Your task to perform on an android device: Add alienware area 51 to the cart on amazon Image 0: 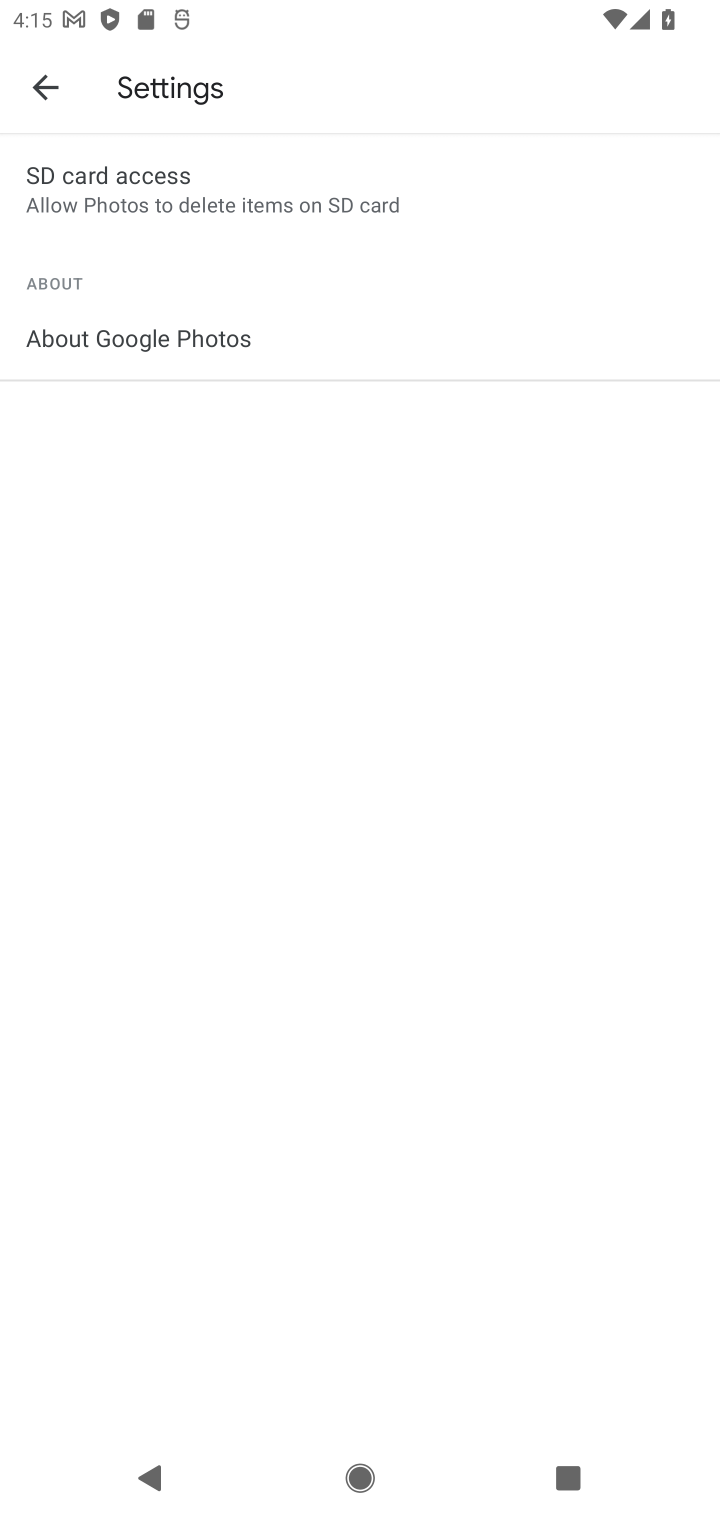
Step 0: press home button
Your task to perform on an android device: Add alienware area 51 to the cart on amazon Image 1: 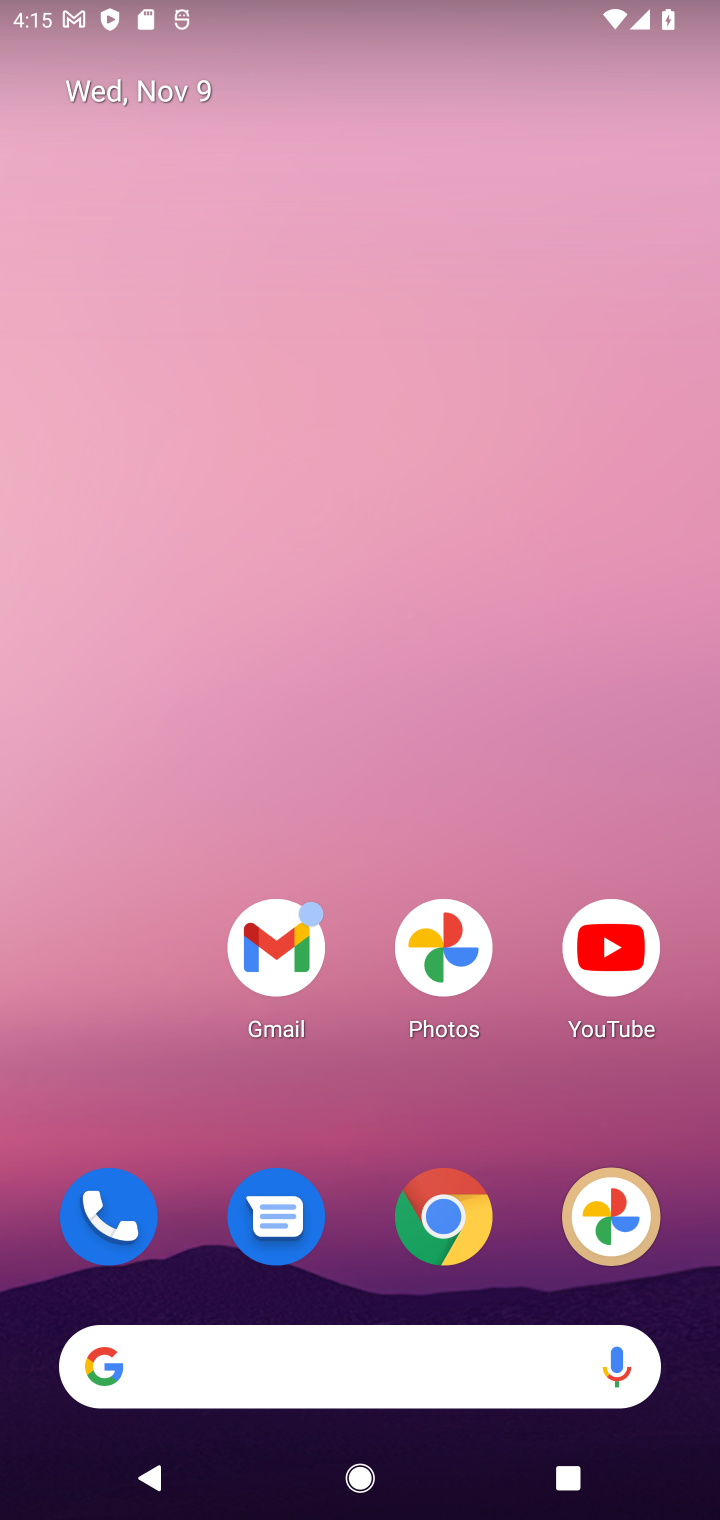
Step 1: drag from (374, 1101) to (393, 281)
Your task to perform on an android device: Add alienware area 51 to the cart on amazon Image 2: 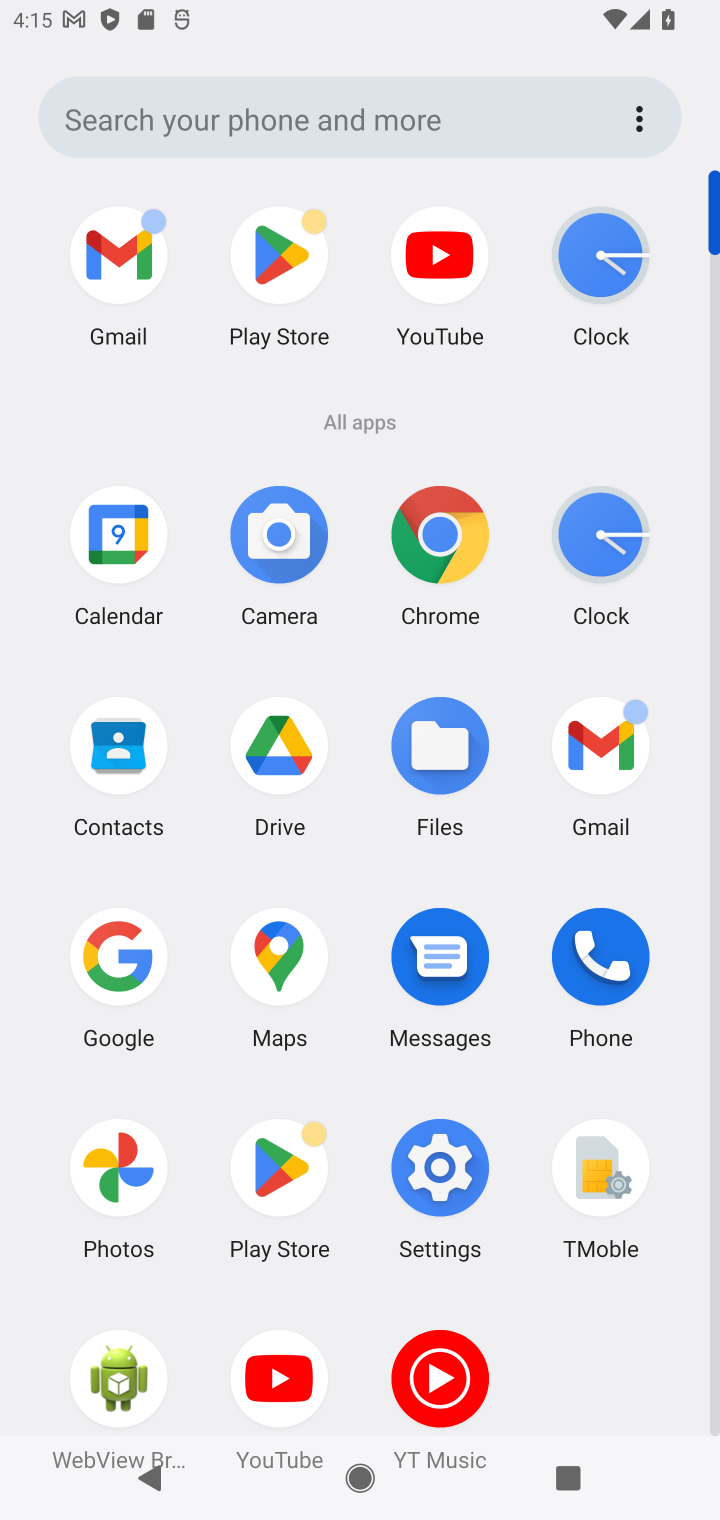
Step 2: click (438, 532)
Your task to perform on an android device: Add alienware area 51 to the cart on amazon Image 3: 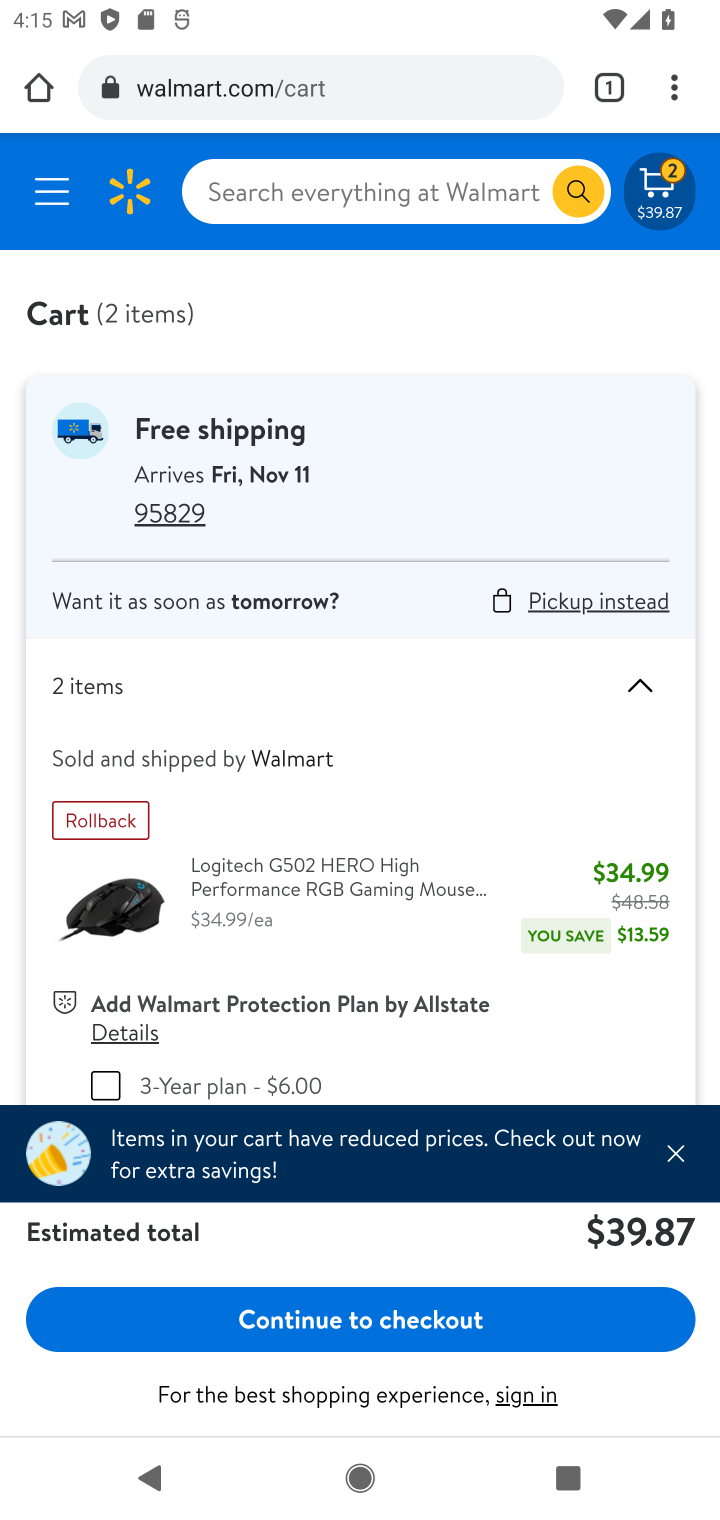
Step 3: click (389, 82)
Your task to perform on an android device: Add alienware area 51 to the cart on amazon Image 4: 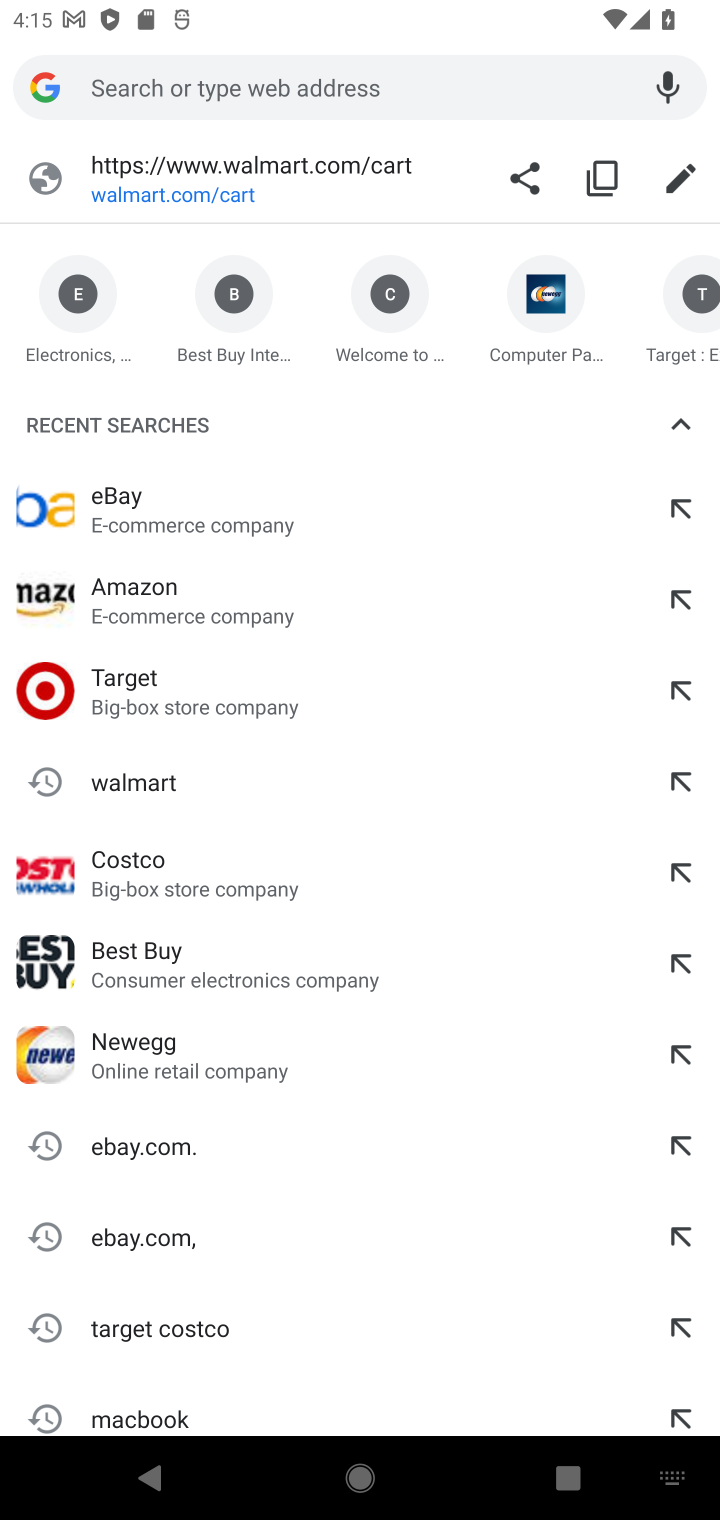
Step 4: type "amazon.com"
Your task to perform on an android device: Add alienware area 51 to the cart on amazon Image 5: 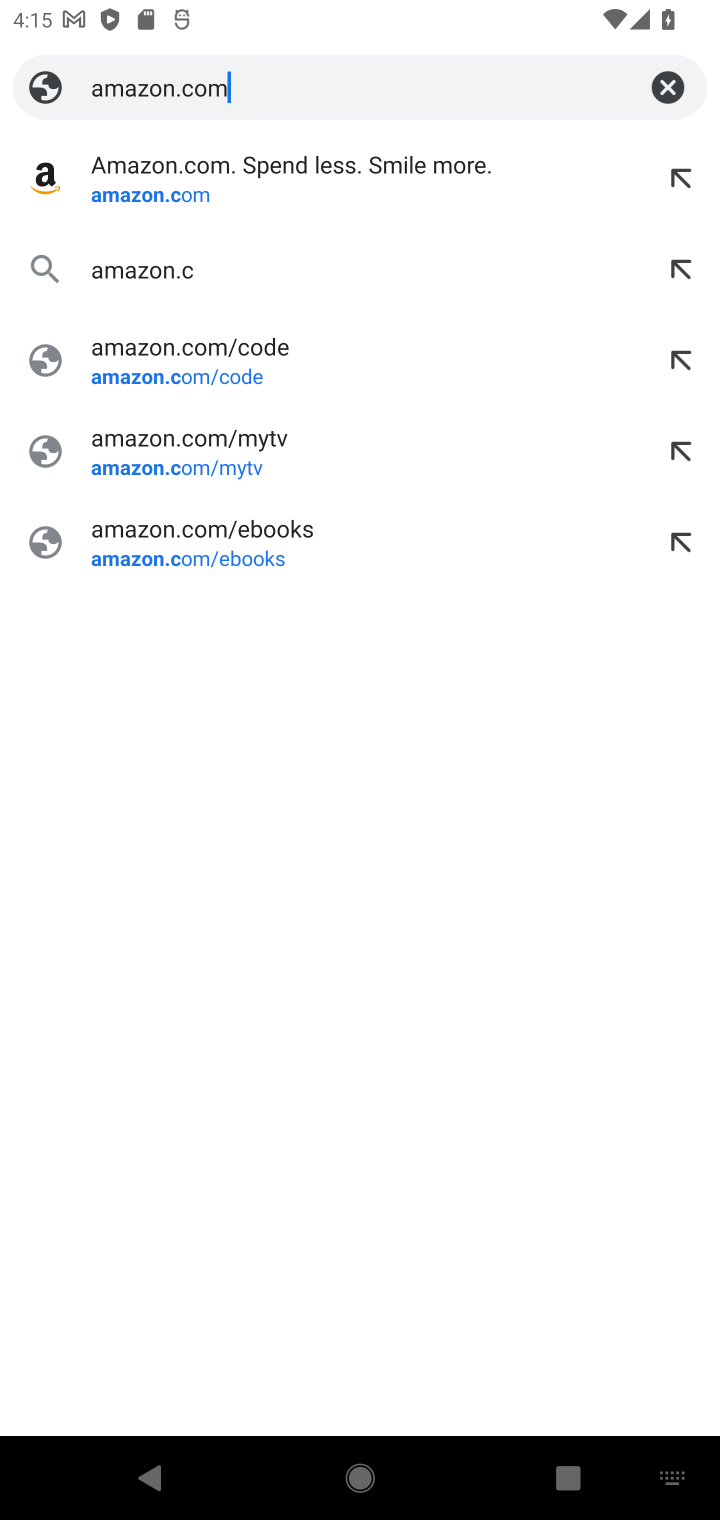
Step 5: press enter
Your task to perform on an android device: Add alienware area 51 to the cart on amazon Image 6: 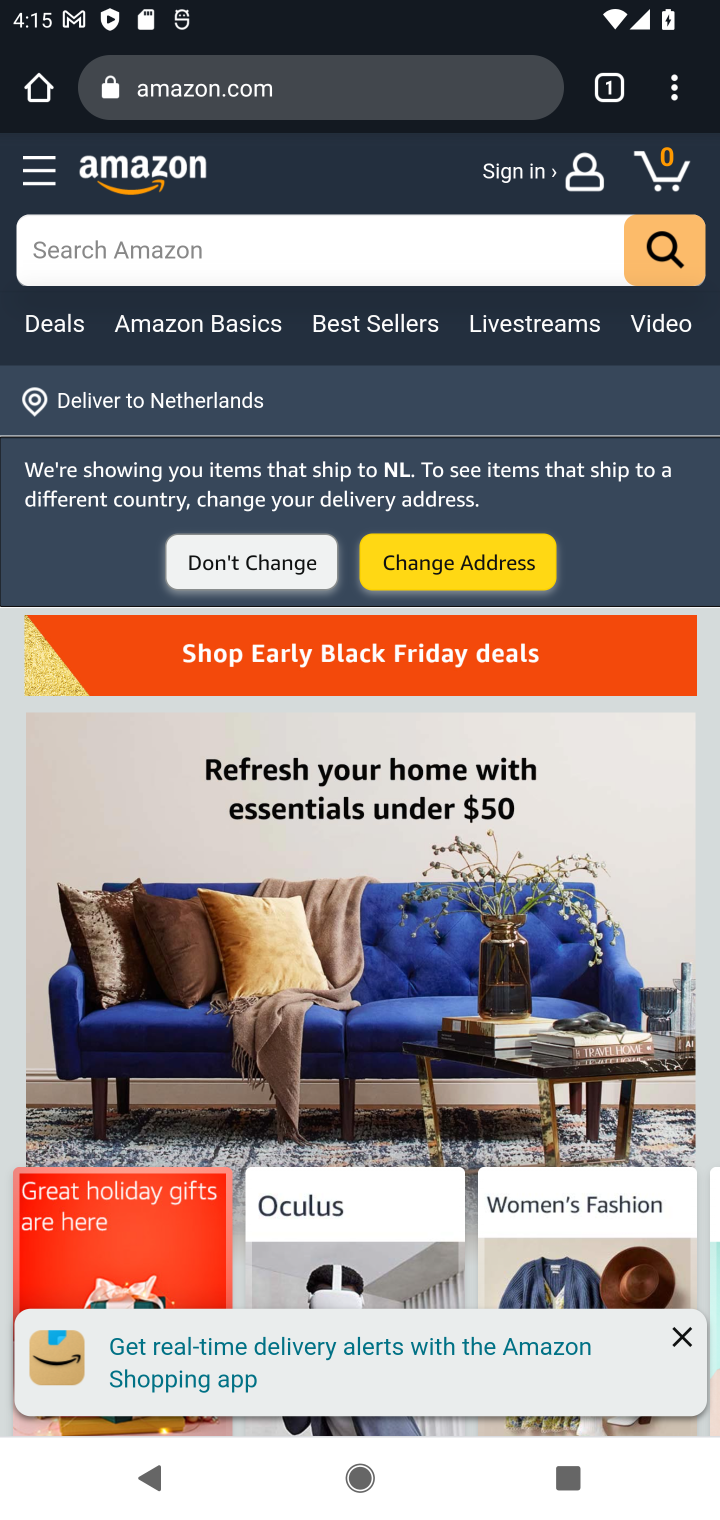
Step 6: click (498, 264)
Your task to perform on an android device: Add alienware area 51 to the cart on amazon Image 7: 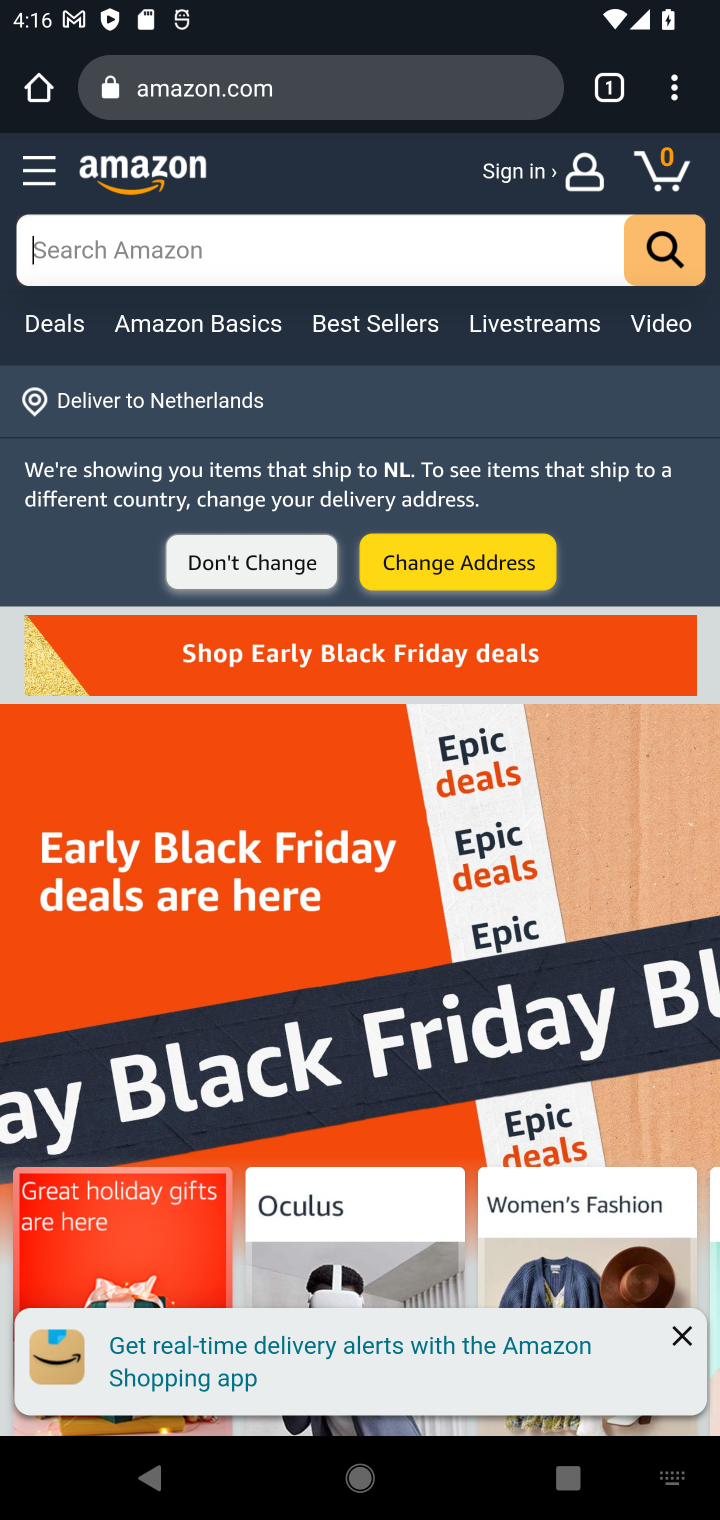
Step 7: type "alienware area 51"
Your task to perform on an android device: Add alienware area 51 to the cart on amazon Image 8: 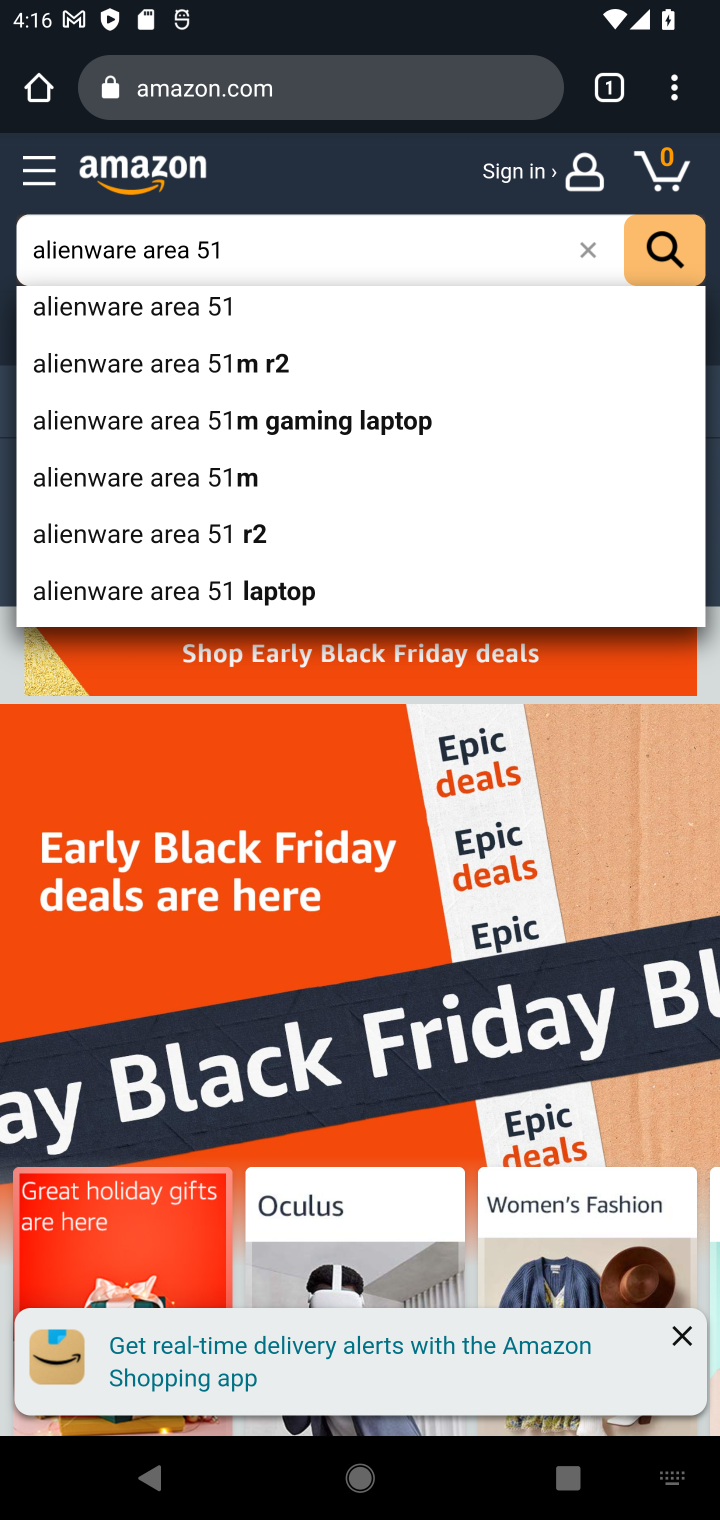
Step 8: press enter
Your task to perform on an android device: Add alienware area 51 to the cart on amazon Image 9: 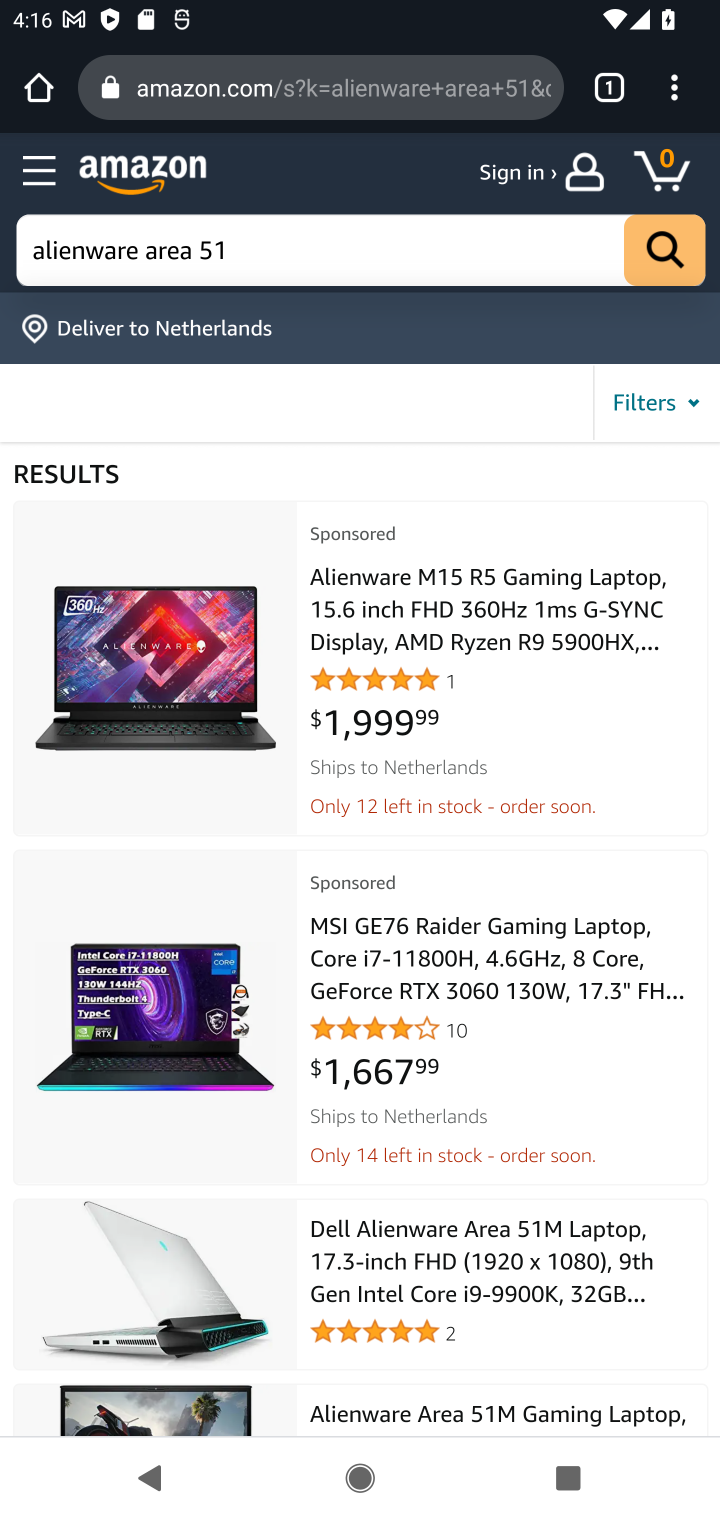
Step 9: drag from (438, 1275) to (457, 773)
Your task to perform on an android device: Add alienware area 51 to the cart on amazon Image 10: 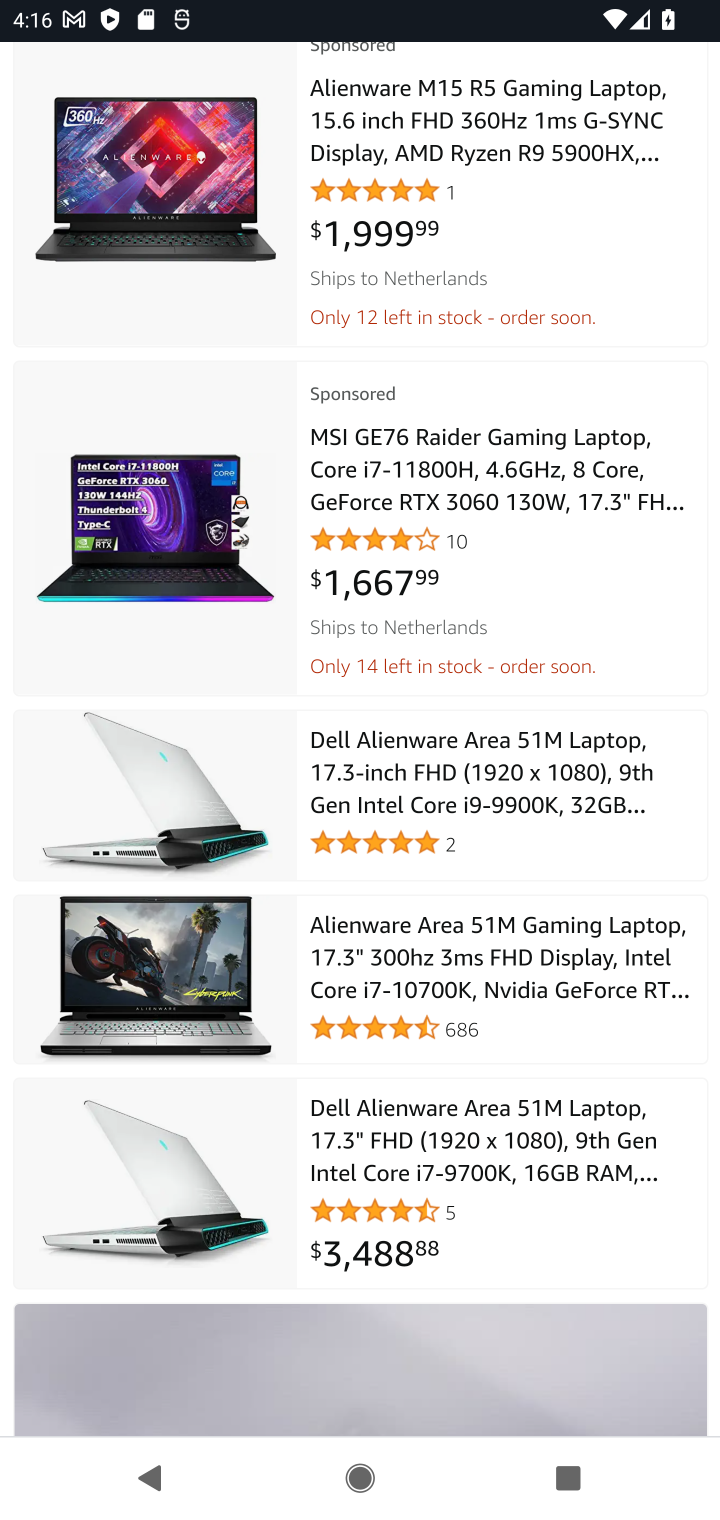
Step 10: click (461, 793)
Your task to perform on an android device: Add alienware area 51 to the cart on amazon Image 11: 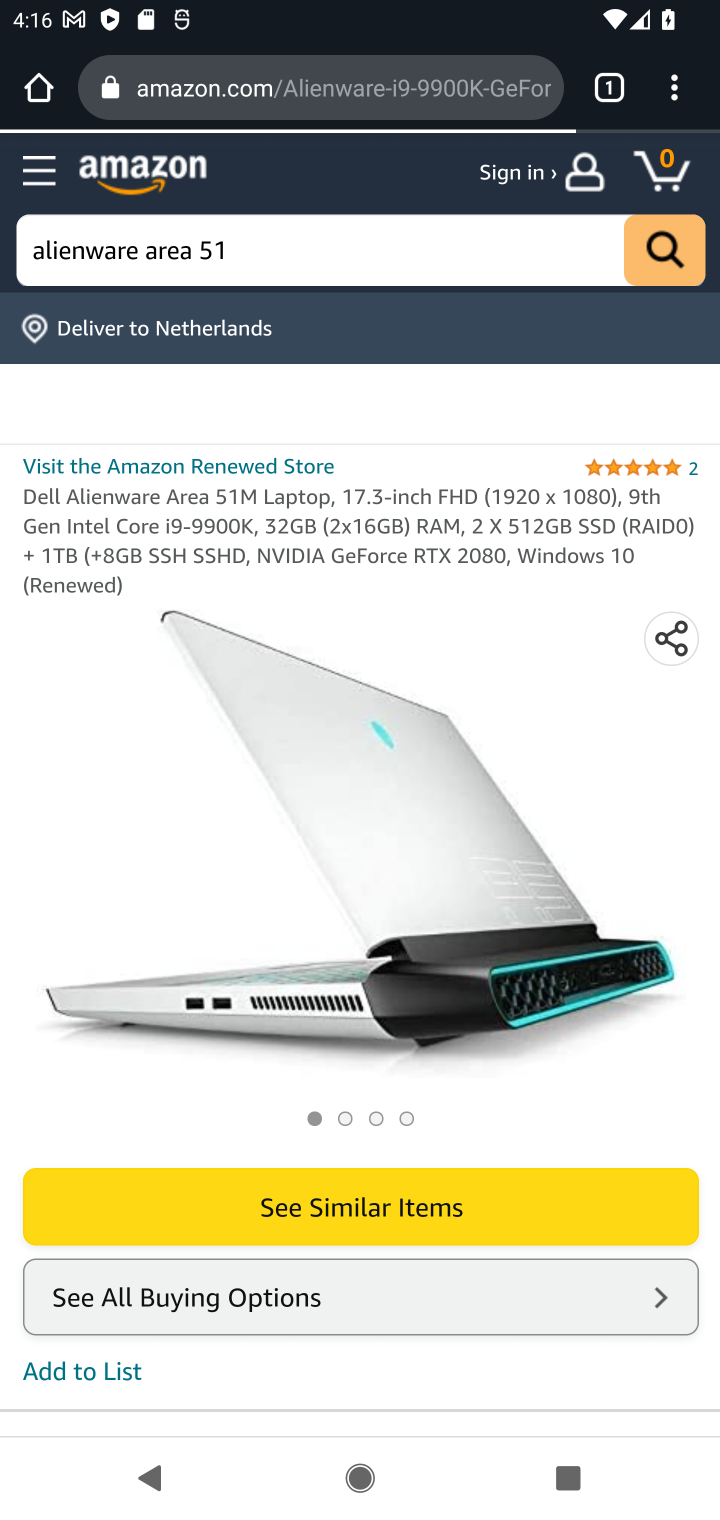
Step 11: drag from (468, 1220) to (631, 614)
Your task to perform on an android device: Add alienware area 51 to the cart on amazon Image 12: 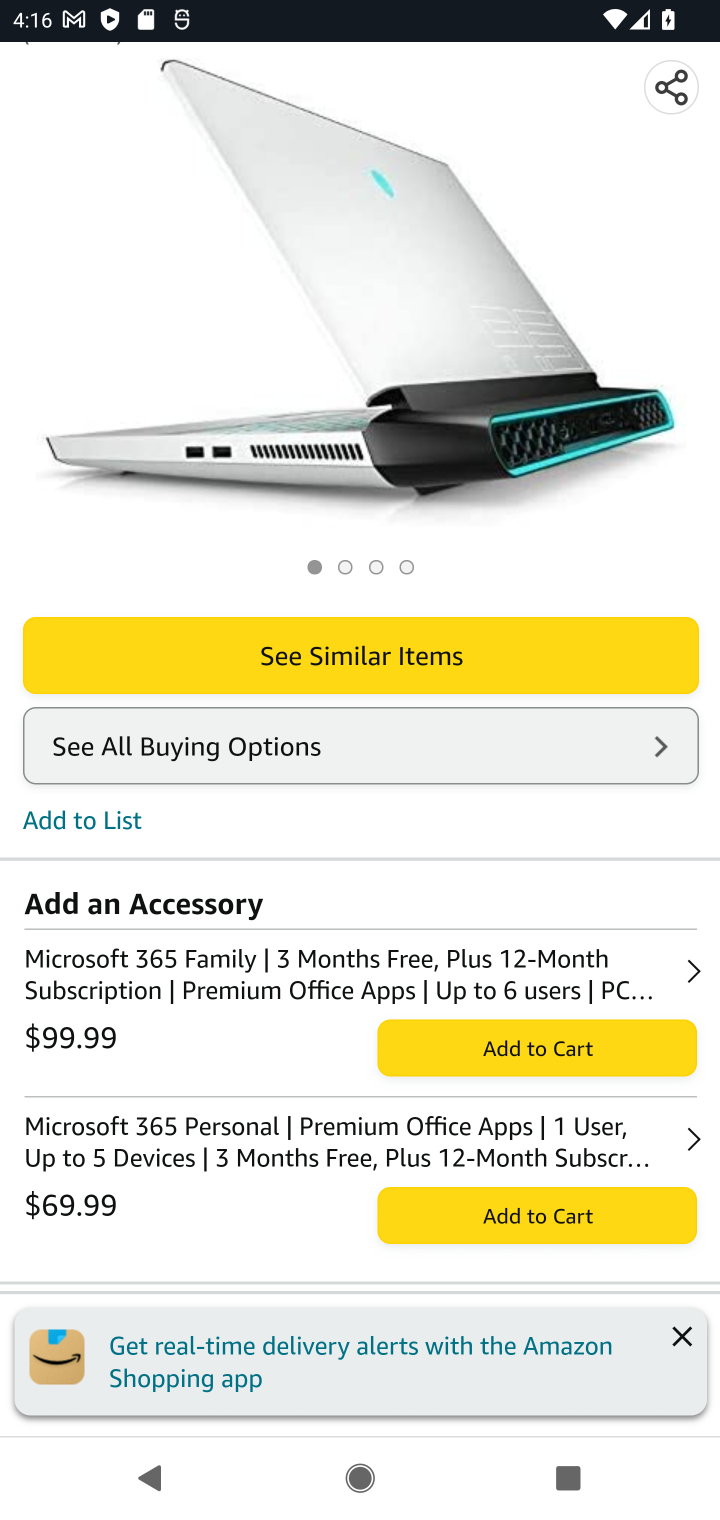
Step 12: click (461, 747)
Your task to perform on an android device: Add alienware area 51 to the cart on amazon Image 13: 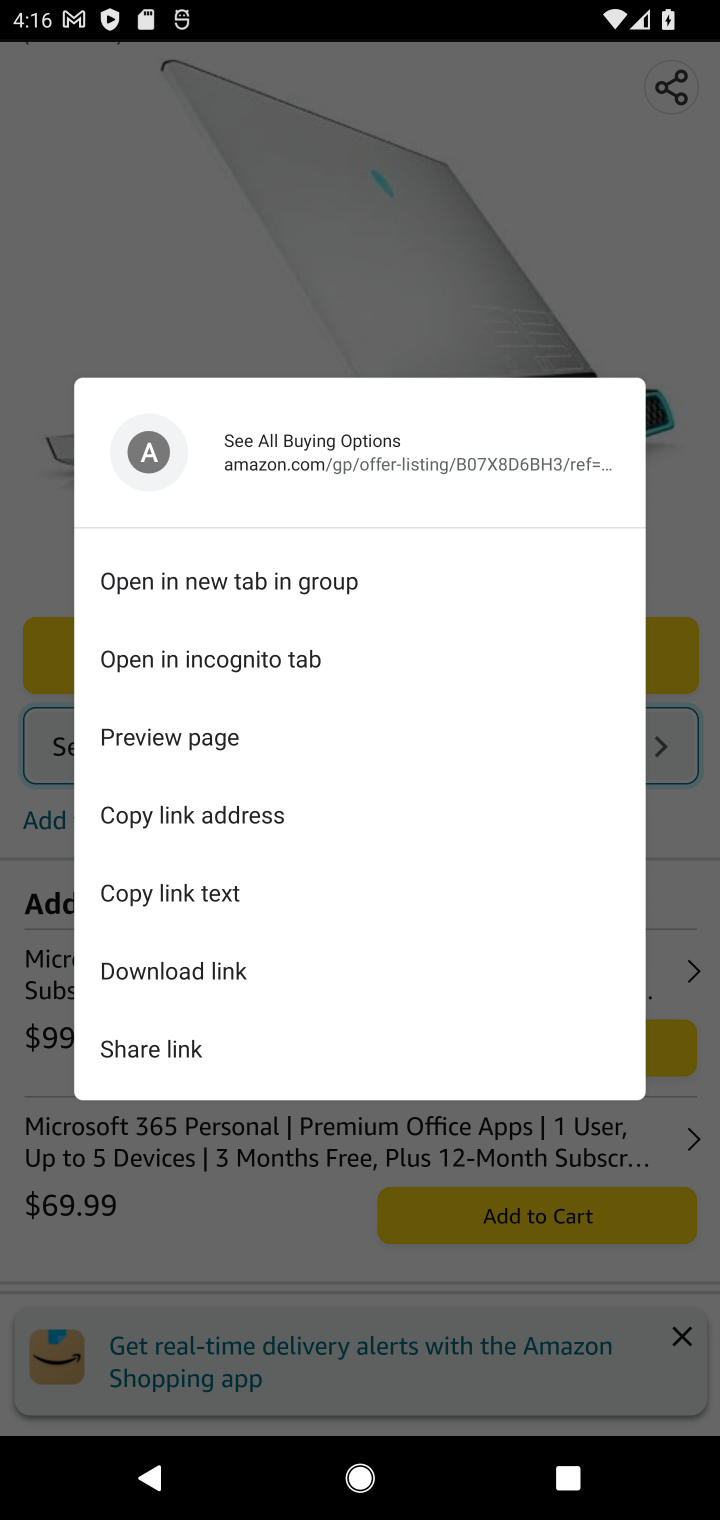
Step 13: click (677, 741)
Your task to perform on an android device: Add alienware area 51 to the cart on amazon Image 14: 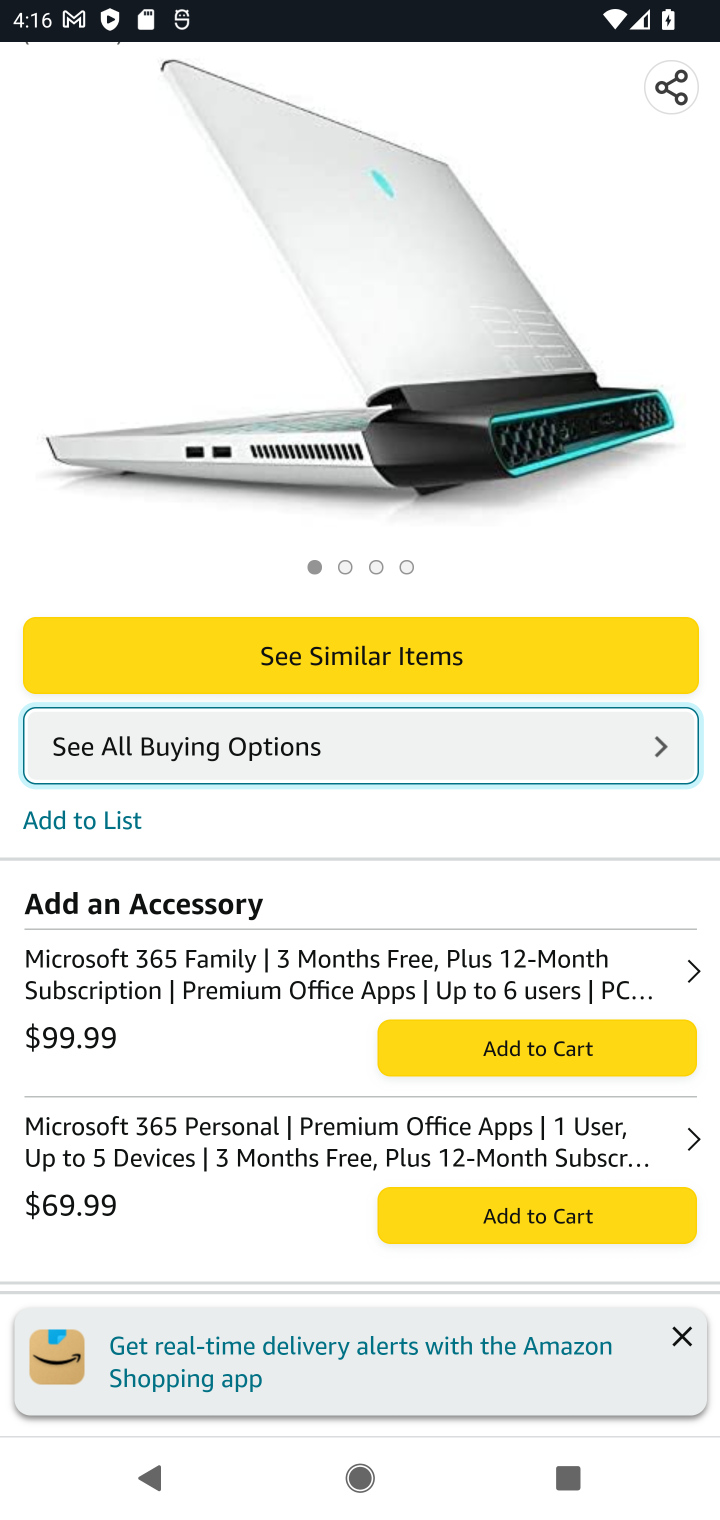
Step 14: click (466, 762)
Your task to perform on an android device: Add alienware area 51 to the cart on amazon Image 15: 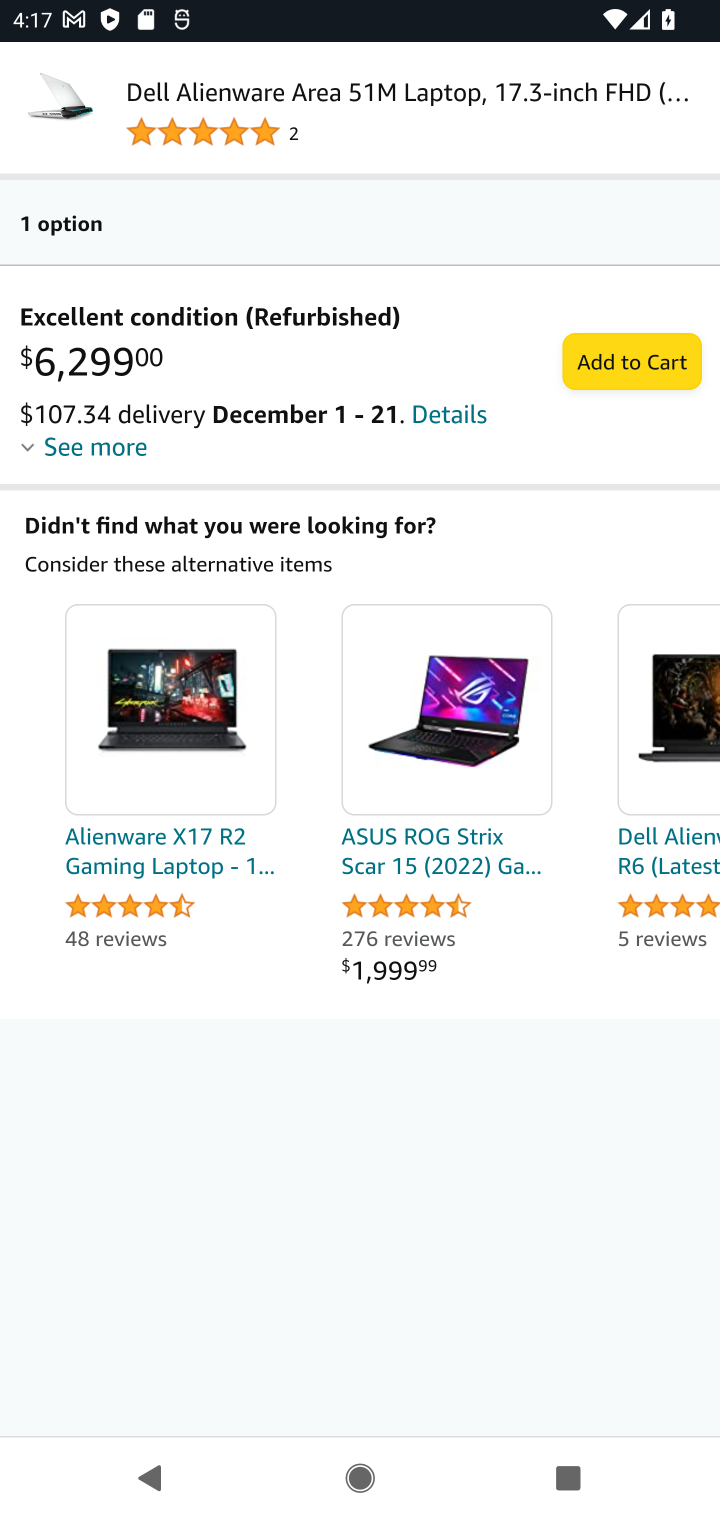
Step 15: click (655, 359)
Your task to perform on an android device: Add alienware area 51 to the cart on amazon Image 16: 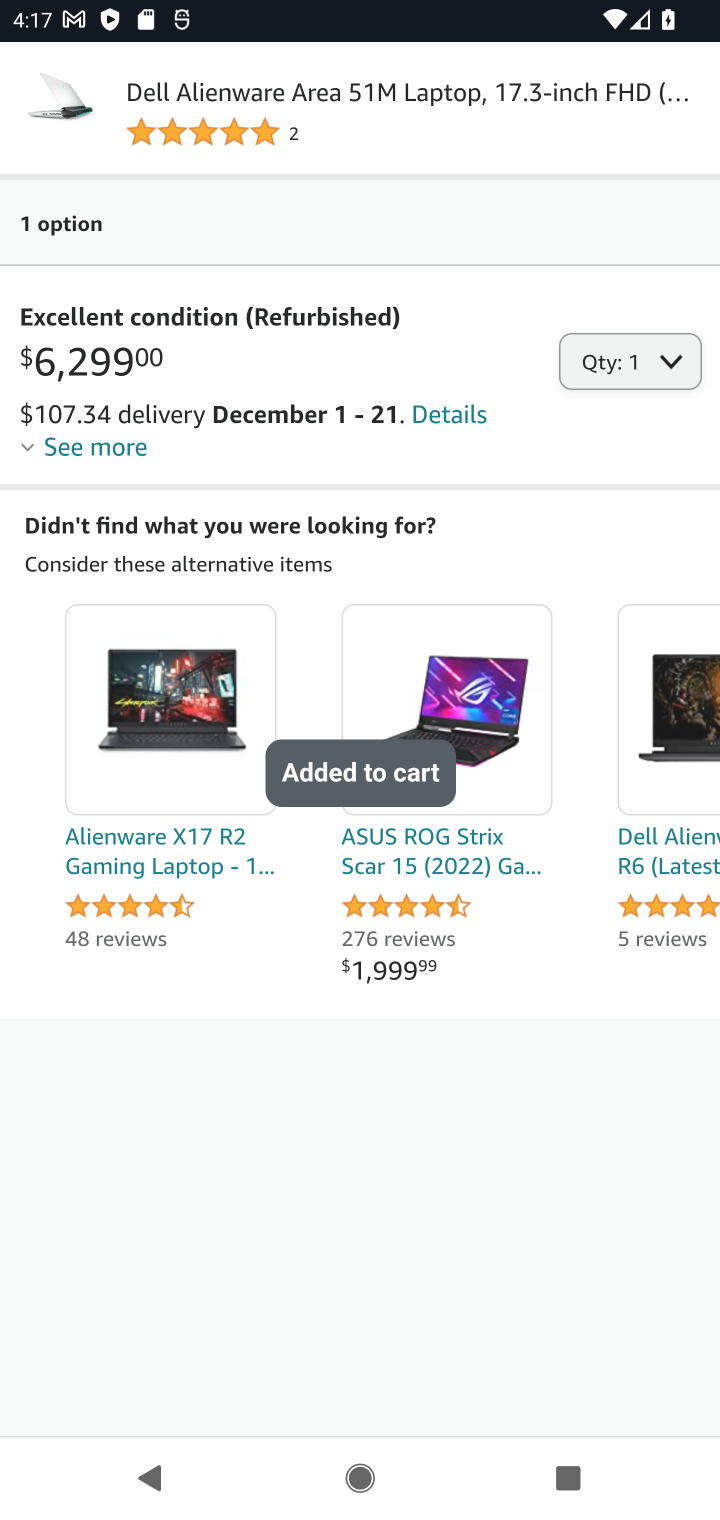
Step 16: task complete